Your task to perform on an android device: Go to CNN.com Image 0: 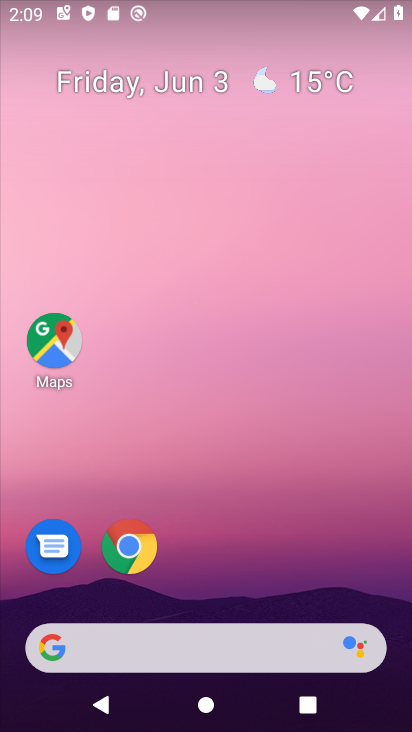
Step 0: drag from (325, 588) to (289, 63)
Your task to perform on an android device: Go to CNN.com Image 1: 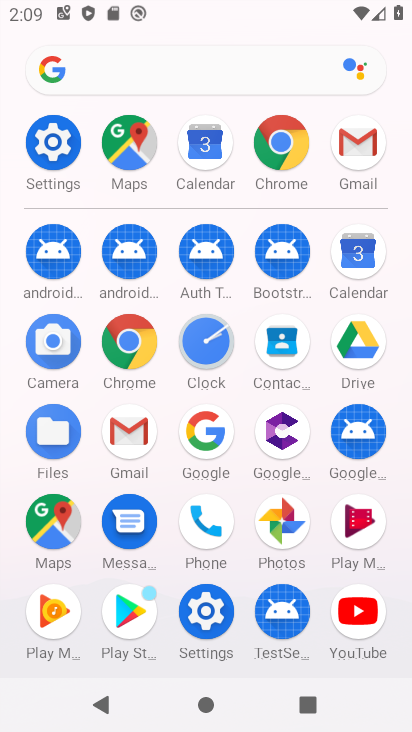
Step 1: click (286, 122)
Your task to perform on an android device: Go to CNN.com Image 2: 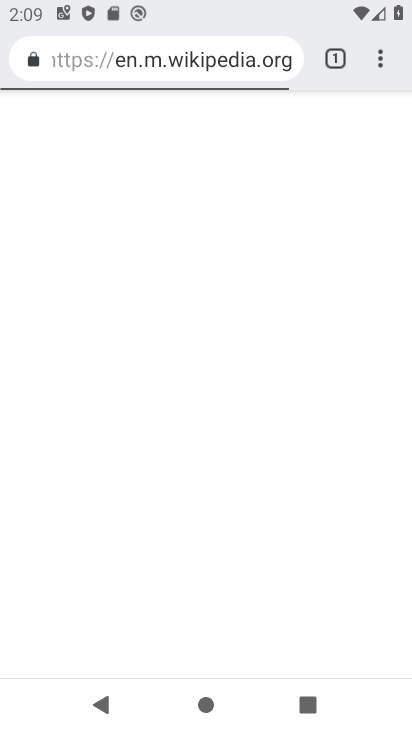
Step 2: click (180, 68)
Your task to perform on an android device: Go to CNN.com Image 3: 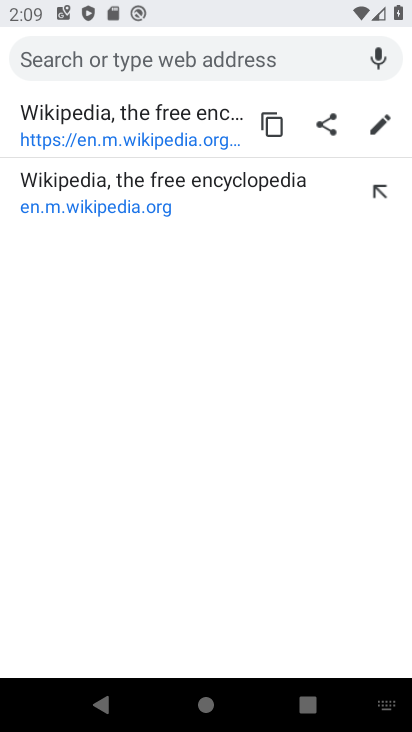
Step 3: type "cnn"
Your task to perform on an android device: Go to CNN.com Image 4: 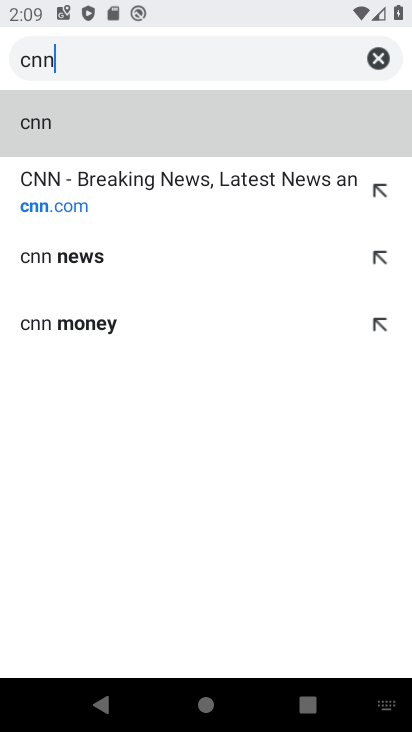
Step 4: click (87, 194)
Your task to perform on an android device: Go to CNN.com Image 5: 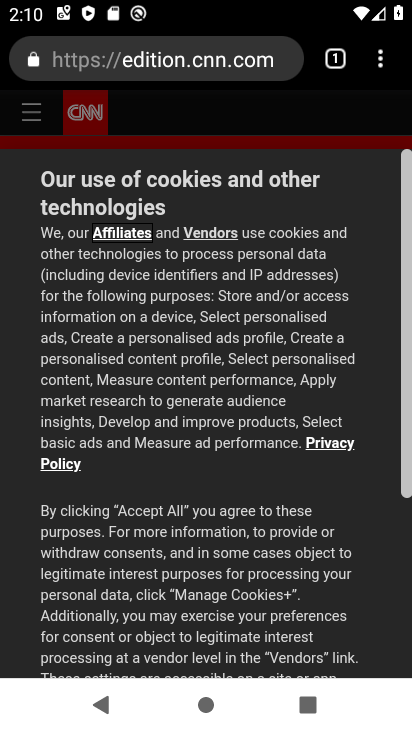
Step 5: task complete